Your task to perform on an android device: toggle wifi Image 0: 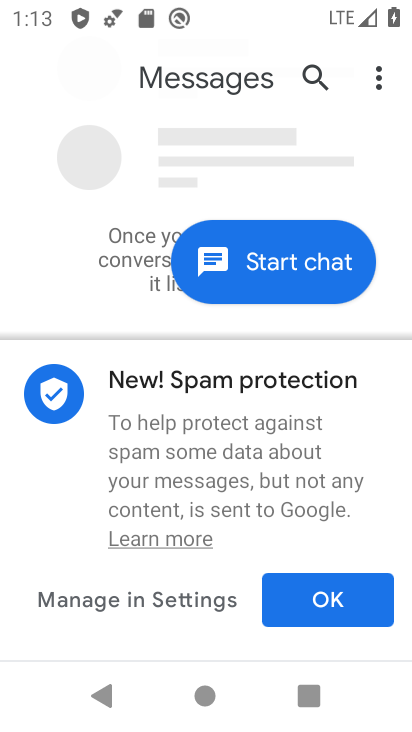
Step 0: press home button
Your task to perform on an android device: toggle wifi Image 1: 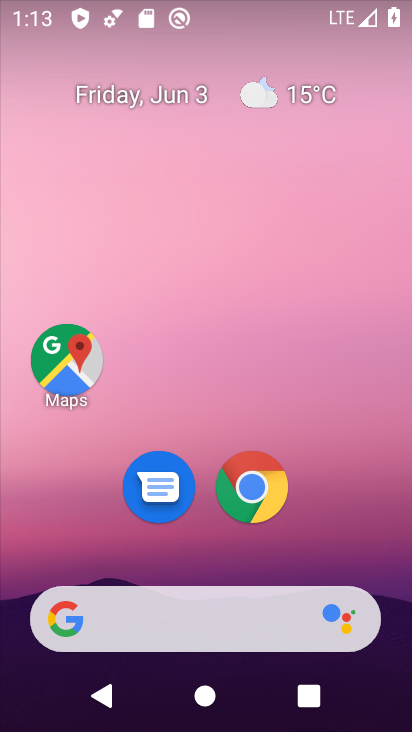
Step 1: drag from (211, 17) to (226, 539)
Your task to perform on an android device: toggle wifi Image 2: 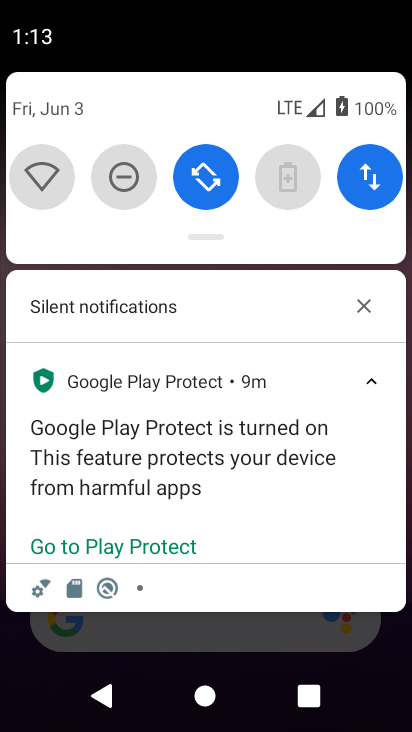
Step 2: click (42, 184)
Your task to perform on an android device: toggle wifi Image 3: 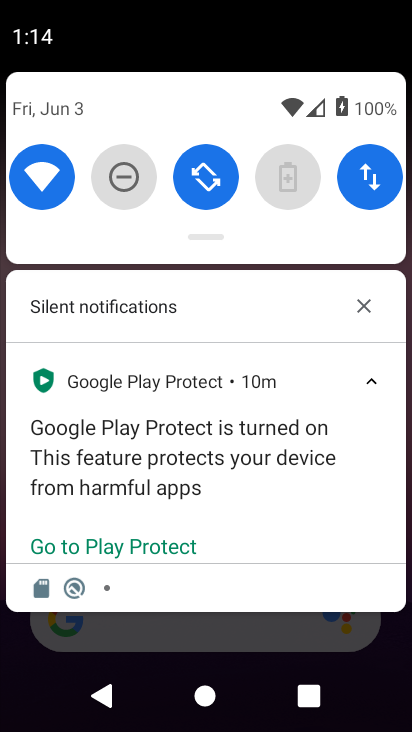
Step 3: task complete